Your task to perform on an android device: delete browsing data in the chrome app Image 0: 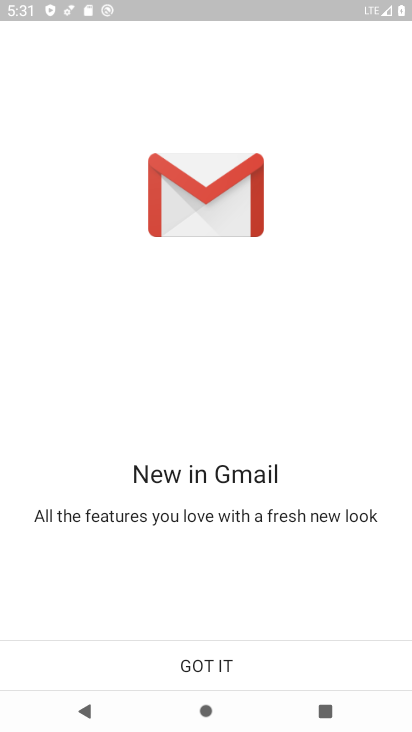
Step 0: press home button
Your task to perform on an android device: delete browsing data in the chrome app Image 1: 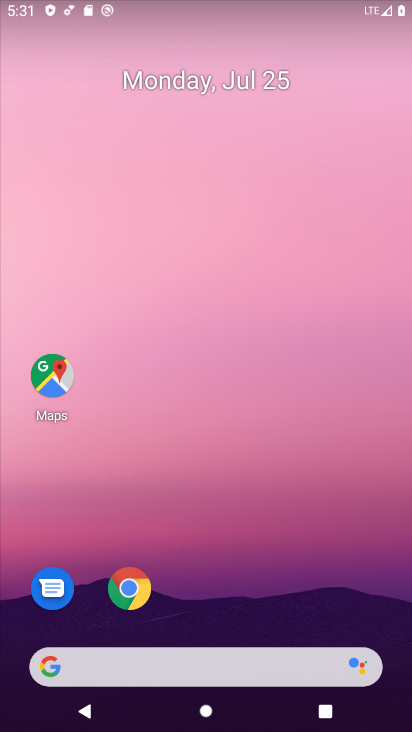
Step 1: click (131, 589)
Your task to perform on an android device: delete browsing data in the chrome app Image 2: 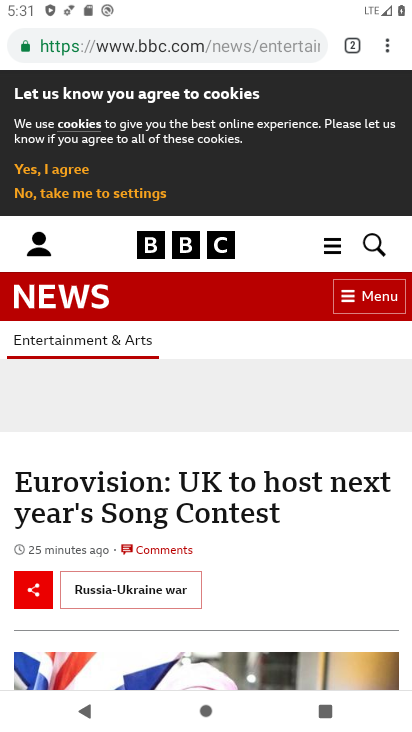
Step 2: click (388, 46)
Your task to perform on an android device: delete browsing data in the chrome app Image 3: 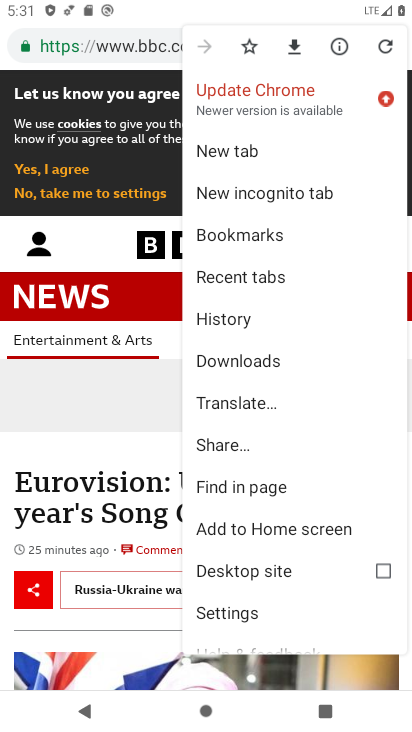
Step 3: click (234, 612)
Your task to perform on an android device: delete browsing data in the chrome app Image 4: 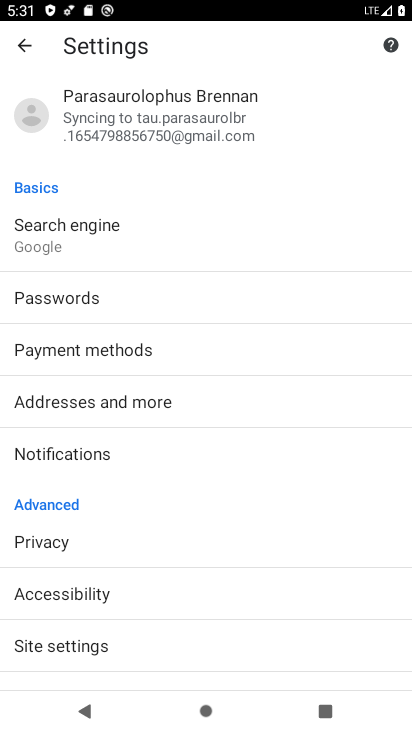
Step 4: click (50, 543)
Your task to perform on an android device: delete browsing data in the chrome app Image 5: 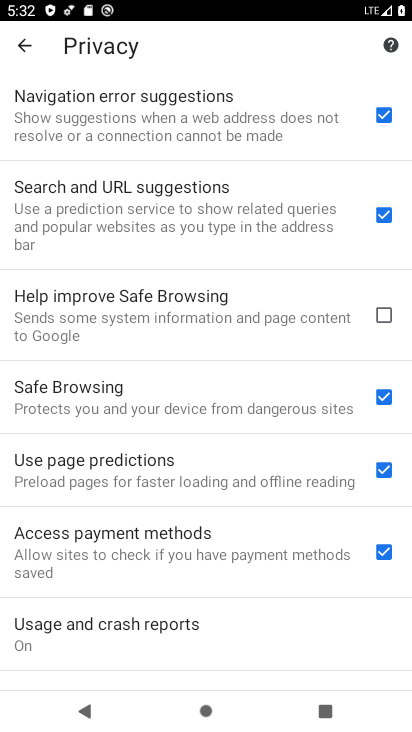
Step 5: drag from (226, 620) to (224, 295)
Your task to perform on an android device: delete browsing data in the chrome app Image 6: 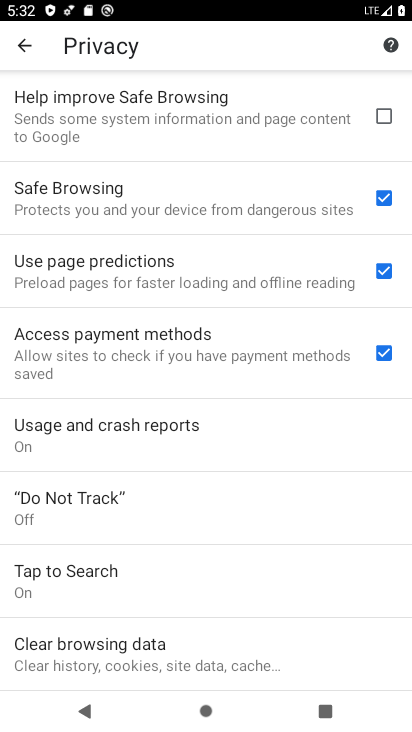
Step 6: click (136, 651)
Your task to perform on an android device: delete browsing data in the chrome app Image 7: 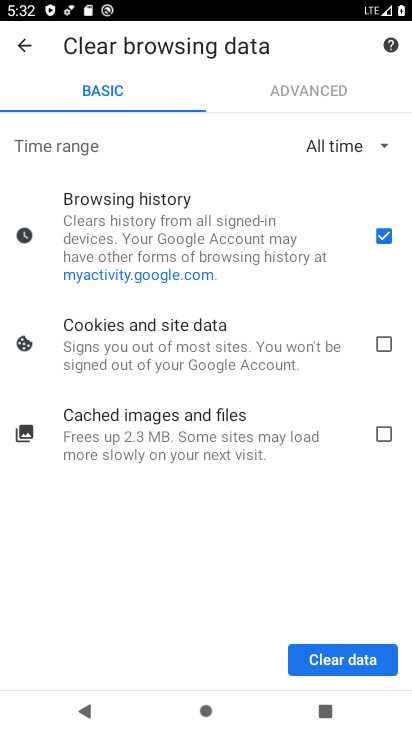
Step 7: click (384, 338)
Your task to perform on an android device: delete browsing data in the chrome app Image 8: 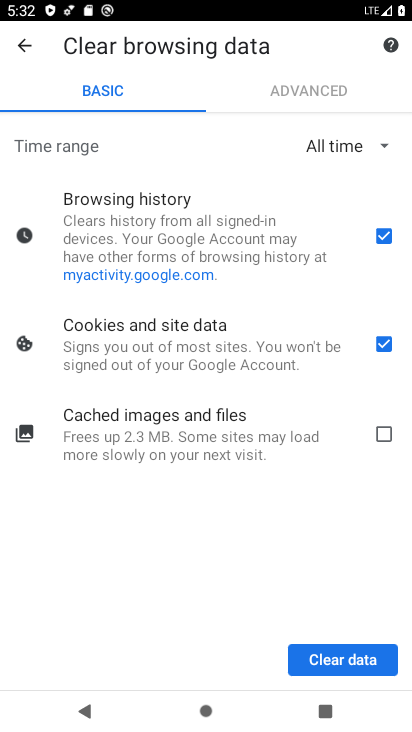
Step 8: click (382, 441)
Your task to perform on an android device: delete browsing data in the chrome app Image 9: 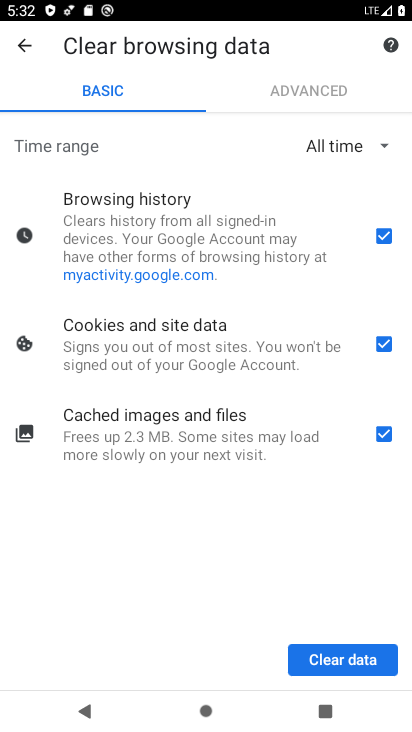
Step 9: click (336, 661)
Your task to perform on an android device: delete browsing data in the chrome app Image 10: 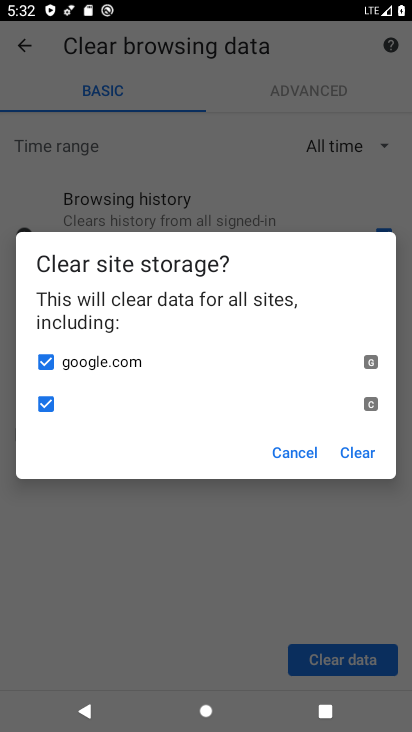
Step 10: click (356, 453)
Your task to perform on an android device: delete browsing data in the chrome app Image 11: 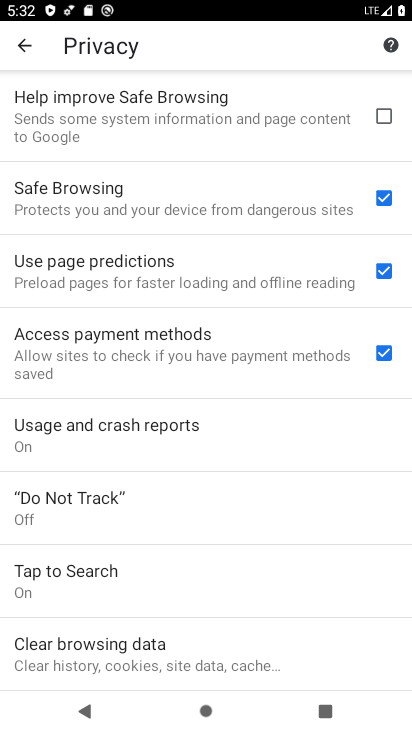
Step 11: task complete